Your task to perform on an android device: toggle translation in the chrome app Image 0: 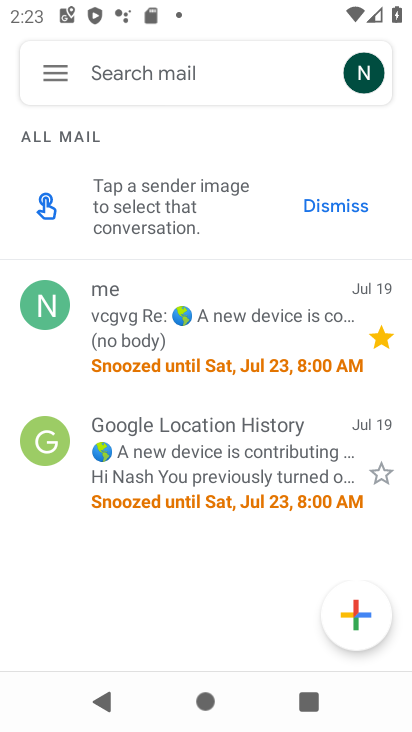
Step 0: press home button
Your task to perform on an android device: toggle translation in the chrome app Image 1: 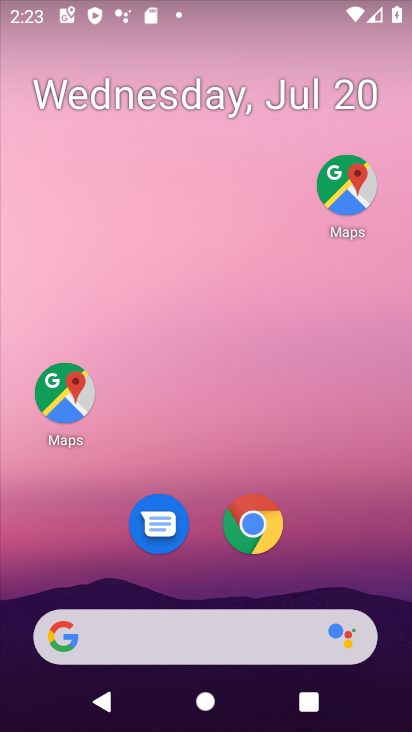
Step 1: click (263, 516)
Your task to perform on an android device: toggle translation in the chrome app Image 2: 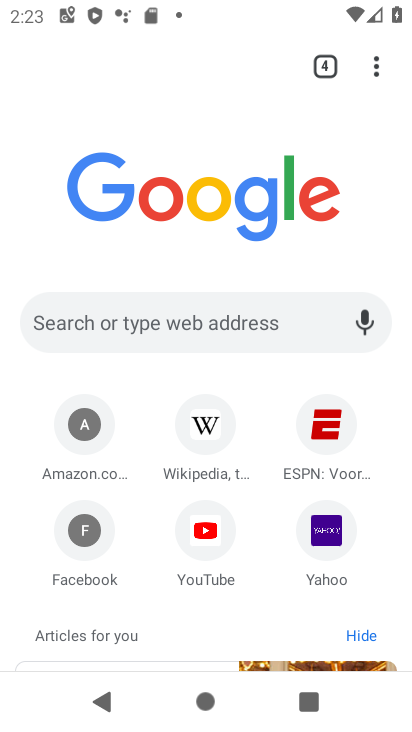
Step 2: click (379, 67)
Your task to perform on an android device: toggle translation in the chrome app Image 3: 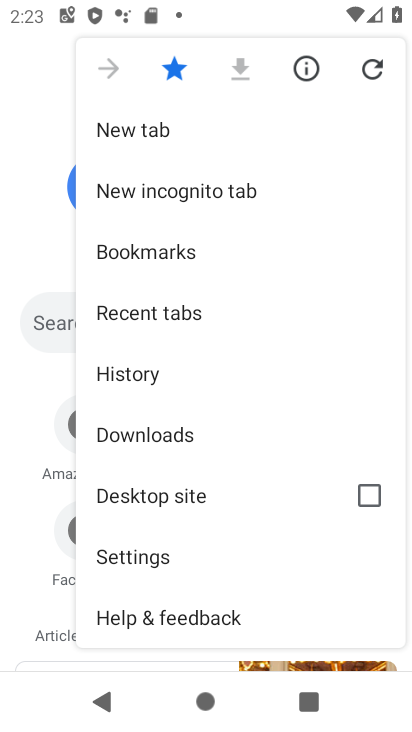
Step 3: click (161, 550)
Your task to perform on an android device: toggle translation in the chrome app Image 4: 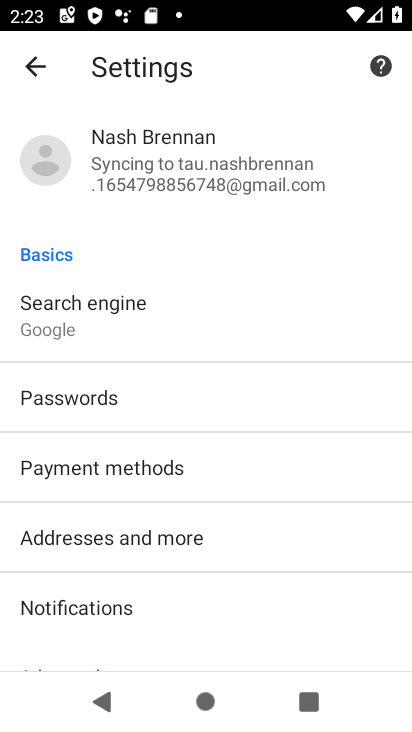
Step 4: drag from (189, 509) to (293, 99)
Your task to perform on an android device: toggle translation in the chrome app Image 5: 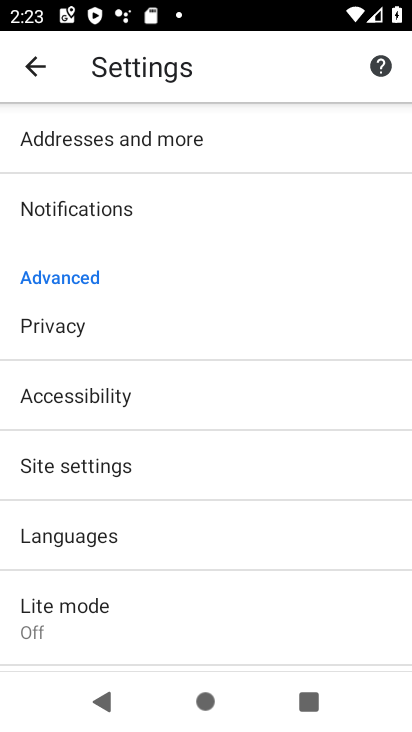
Step 5: click (153, 540)
Your task to perform on an android device: toggle translation in the chrome app Image 6: 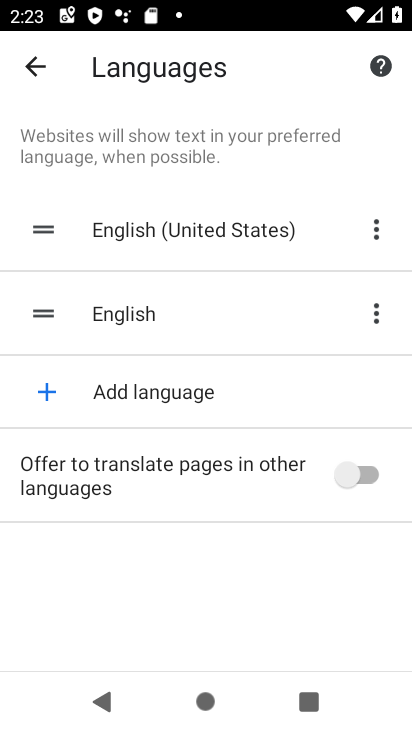
Step 6: click (346, 469)
Your task to perform on an android device: toggle translation in the chrome app Image 7: 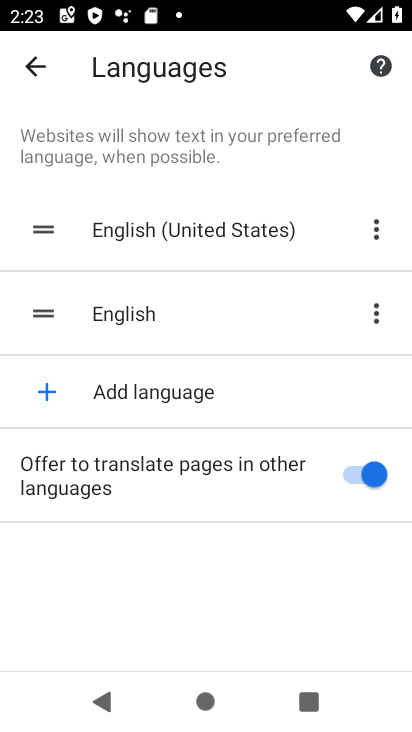
Step 7: task complete